Your task to perform on an android device: open chrome privacy settings Image 0: 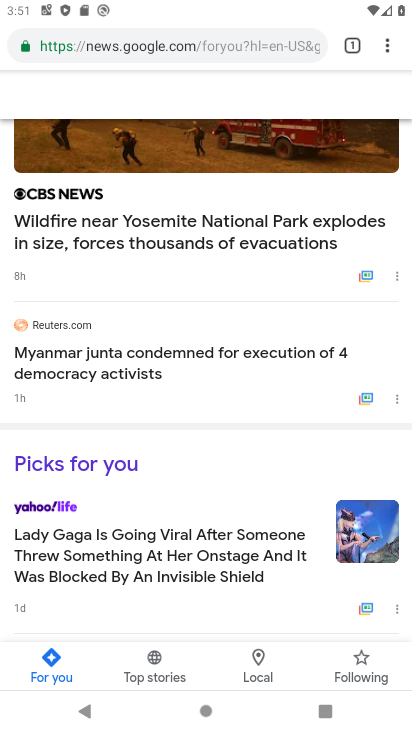
Step 0: drag from (387, 48) to (264, 537)
Your task to perform on an android device: open chrome privacy settings Image 1: 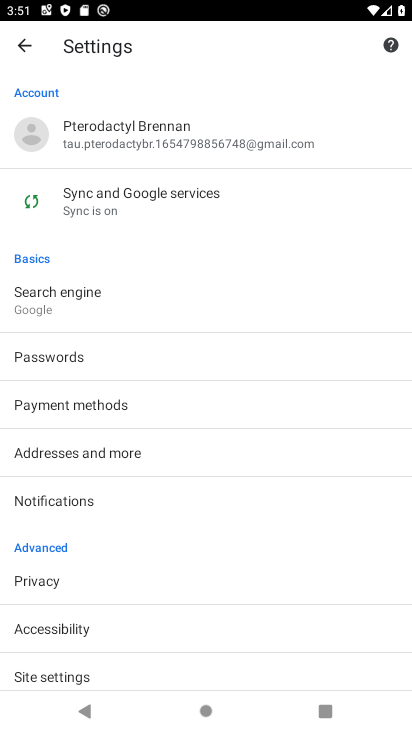
Step 1: click (35, 586)
Your task to perform on an android device: open chrome privacy settings Image 2: 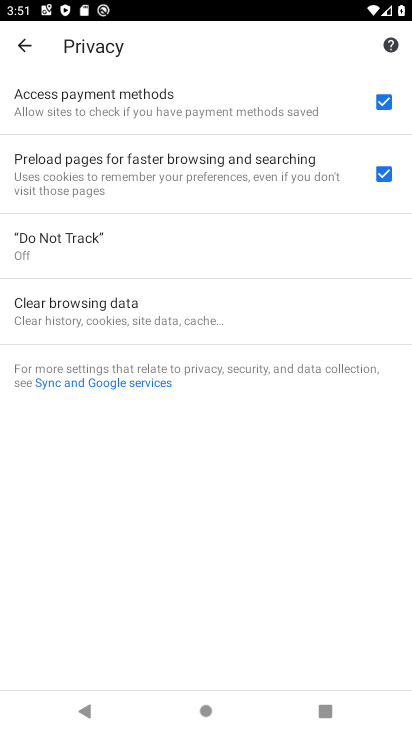
Step 2: task complete